Your task to perform on an android device: open a bookmark in the chrome app Image 0: 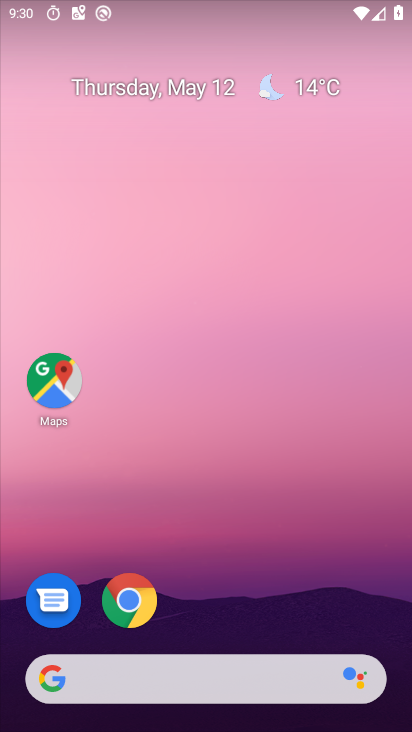
Step 0: drag from (214, 336) to (96, 9)
Your task to perform on an android device: open a bookmark in the chrome app Image 1: 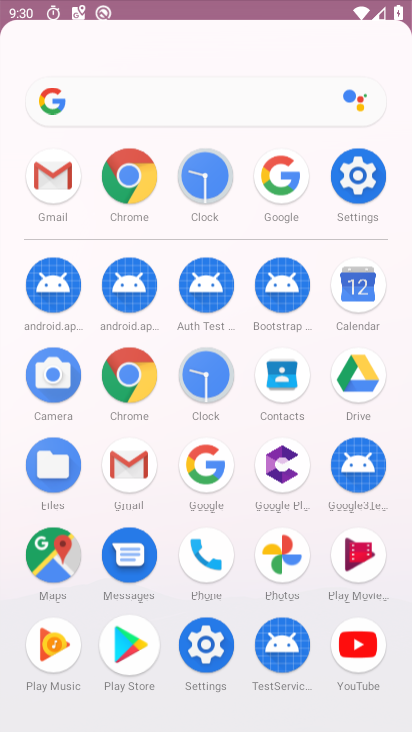
Step 1: drag from (228, 490) to (174, 80)
Your task to perform on an android device: open a bookmark in the chrome app Image 2: 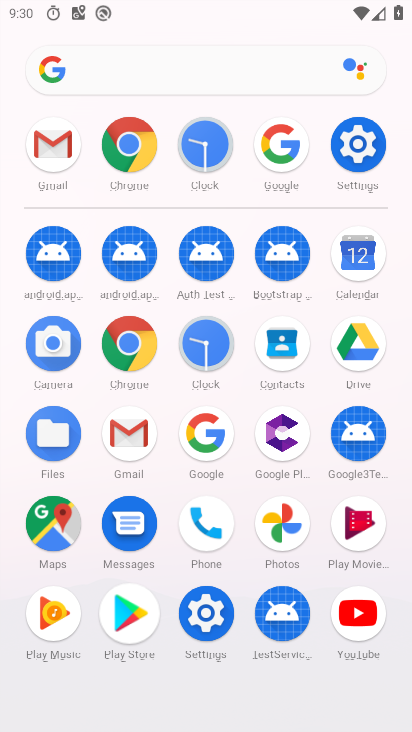
Step 2: drag from (261, 396) to (147, 0)
Your task to perform on an android device: open a bookmark in the chrome app Image 3: 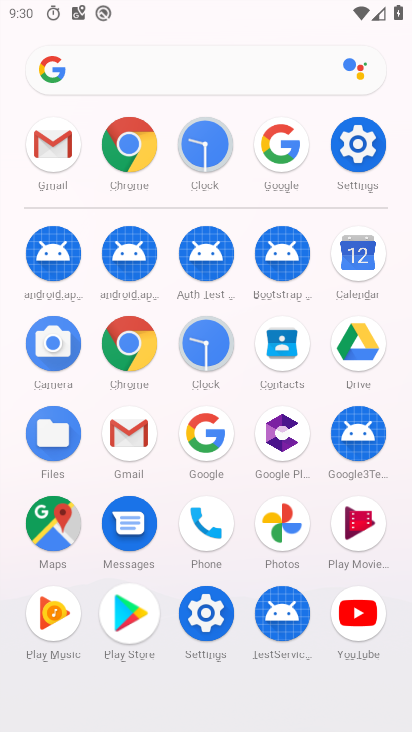
Step 3: drag from (127, 69) to (97, 0)
Your task to perform on an android device: open a bookmark in the chrome app Image 4: 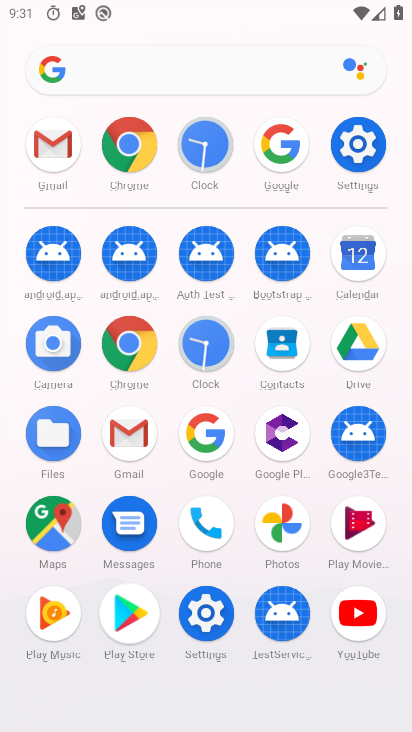
Step 4: click (133, 144)
Your task to perform on an android device: open a bookmark in the chrome app Image 5: 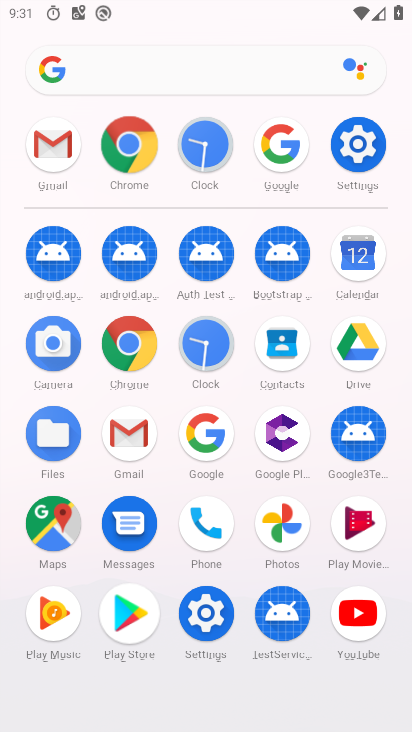
Step 5: click (133, 144)
Your task to perform on an android device: open a bookmark in the chrome app Image 6: 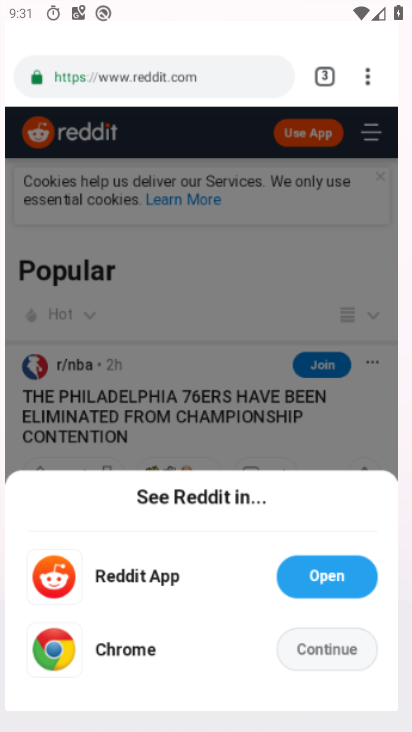
Step 6: click (133, 149)
Your task to perform on an android device: open a bookmark in the chrome app Image 7: 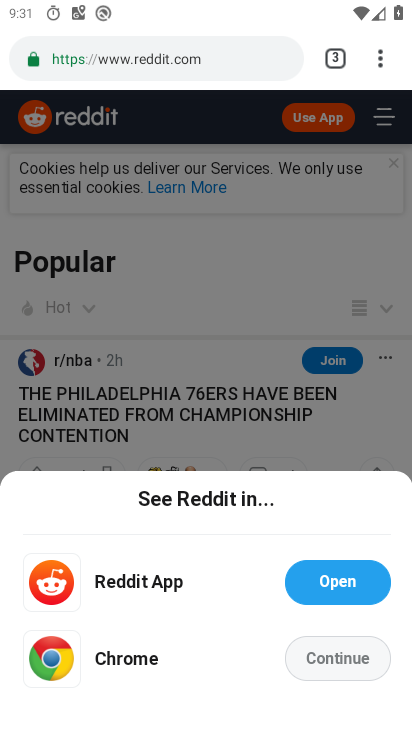
Step 7: drag from (382, 59) to (175, 230)
Your task to perform on an android device: open a bookmark in the chrome app Image 8: 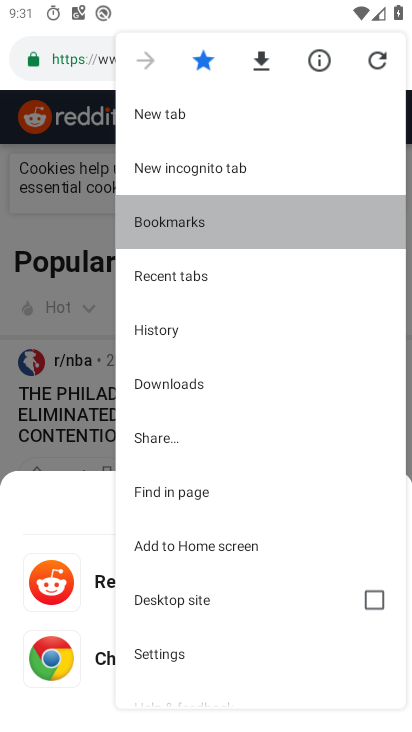
Step 8: click (175, 230)
Your task to perform on an android device: open a bookmark in the chrome app Image 9: 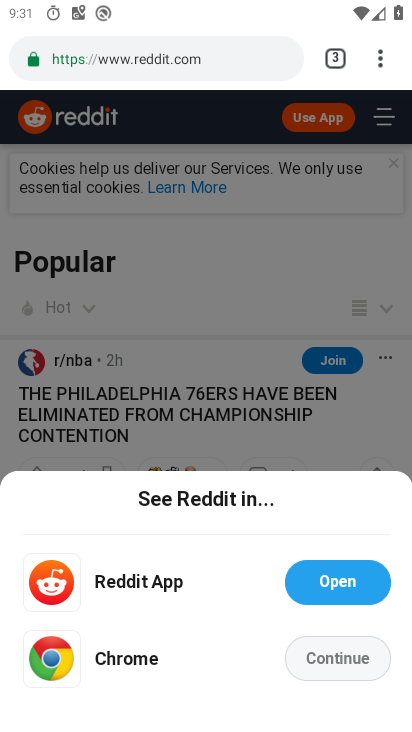
Step 9: click (175, 228)
Your task to perform on an android device: open a bookmark in the chrome app Image 10: 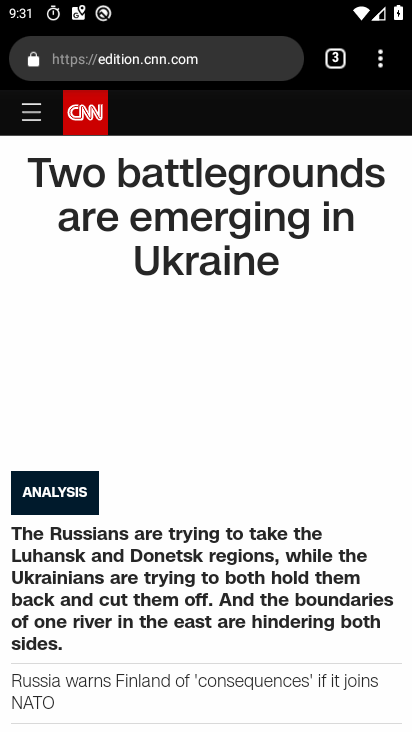
Step 10: click (377, 64)
Your task to perform on an android device: open a bookmark in the chrome app Image 11: 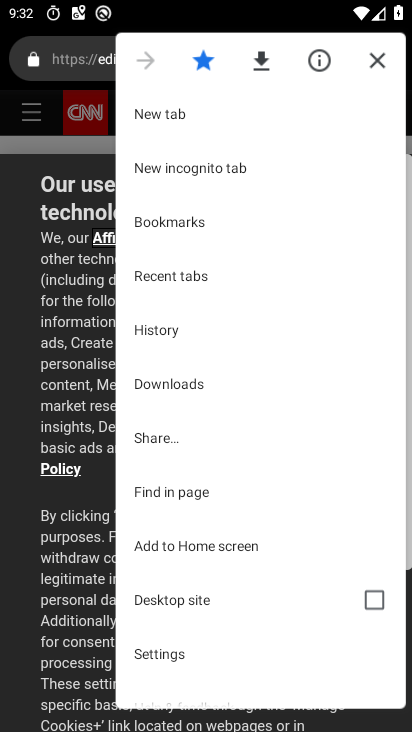
Step 11: click (157, 222)
Your task to perform on an android device: open a bookmark in the chrome app Image 12: 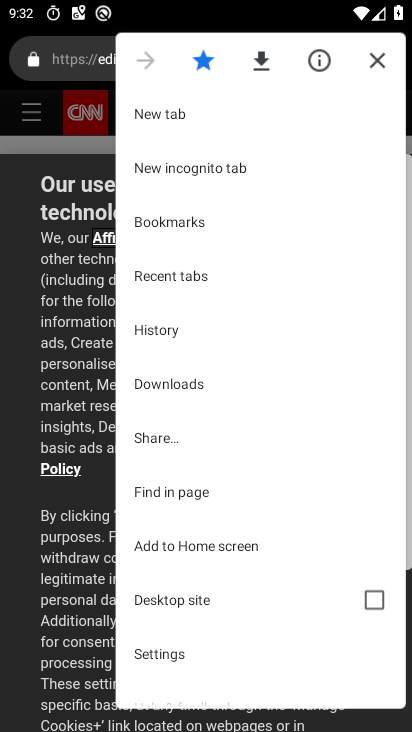
Step 12: click (157, 222)
Your task to perform on an android device: open a bookmark in the chrome app Image 13: 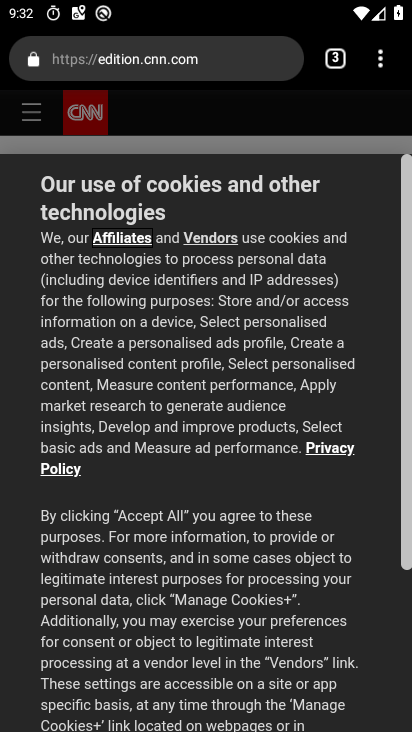
Step 13: click (166, 222)
Your task to perform on an android device: open a bookmark in the chrome app Image 14: 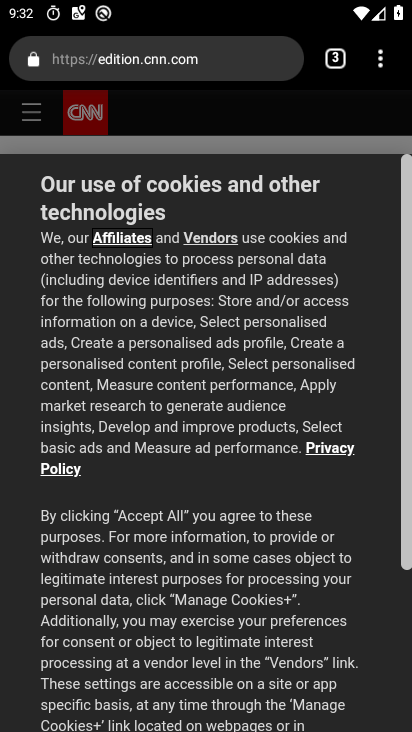
Step 14: click (169, 221)
Your task to perform on an android device: open a bookmark in the chrome app Image 15: 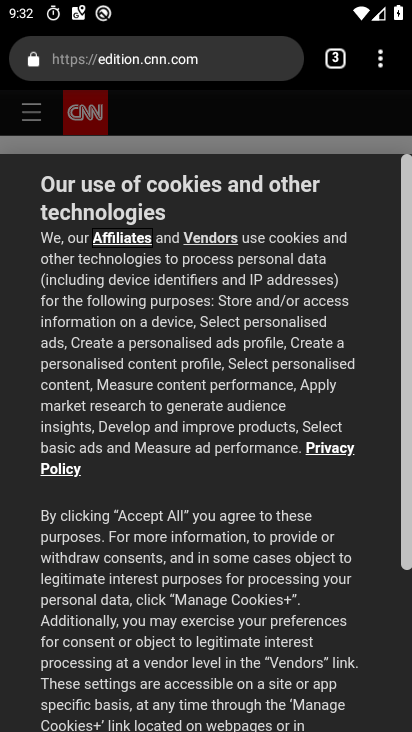
Step 15: click (378, 53)
Your task to perform on an android device: open a bookmark in the chrome app Image 16: 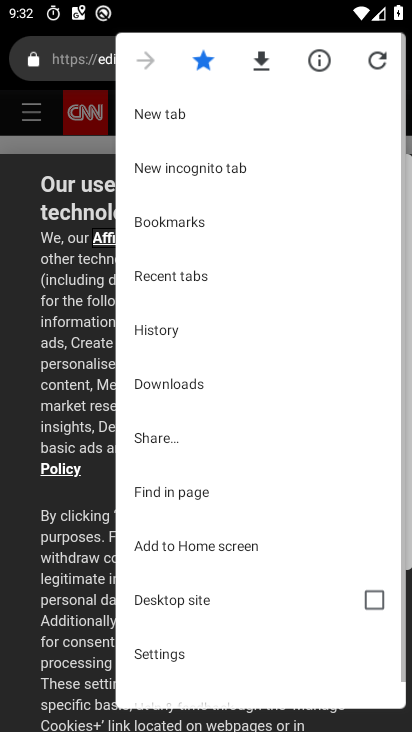
Step 16: task complete